Your task to perform on an android device: open a new tab in the chrome app Image 0: 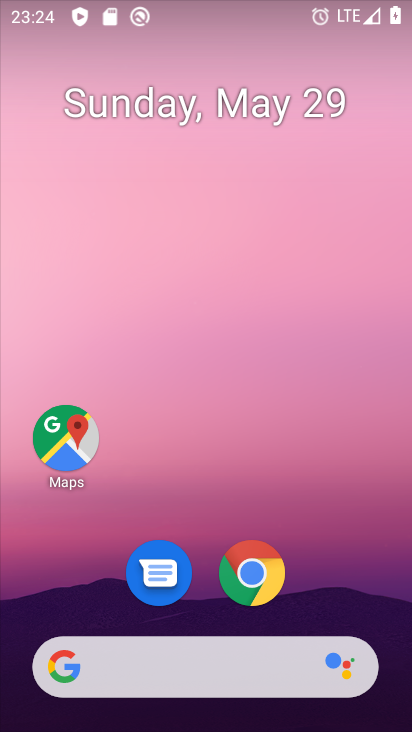
Step 0: click (262, 576)
Your task to perform on an android device: open a new tab in the chrome app Image 1: 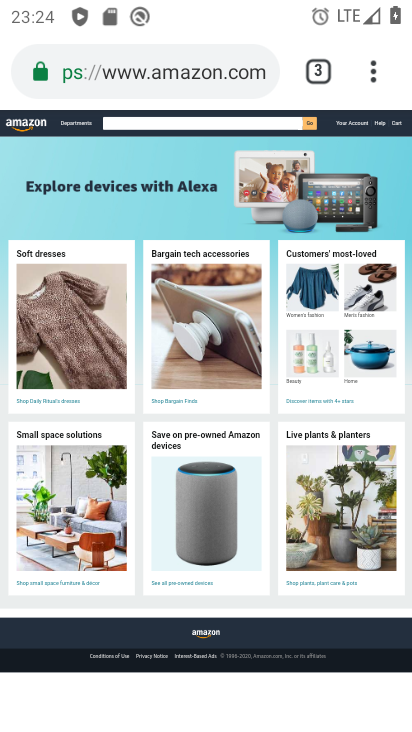
Step 1: click (372, 77)
Your task to perform on an android device: open a new tab in the chrome app Image 2: 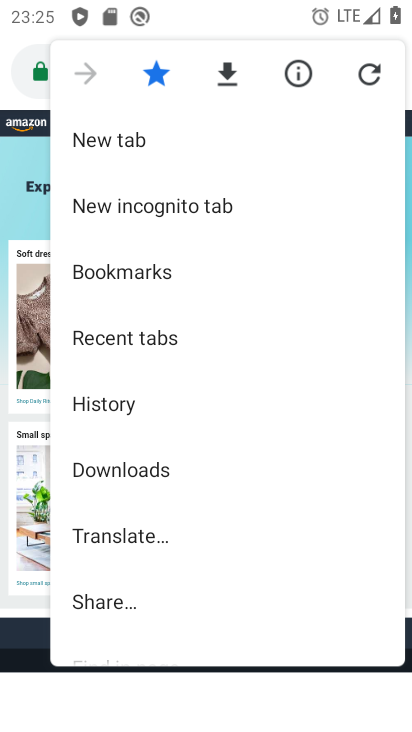
Step 2: click (116, 136)
Your task to perform on an android device: open a new tab in the chrome app Image 3: 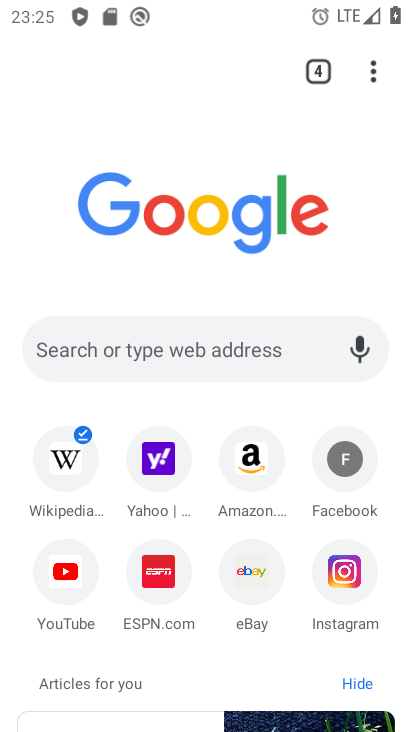
Step 3: task complete